Your task to perform on an android device: delete the emails in spam in the gmail app Image 0: 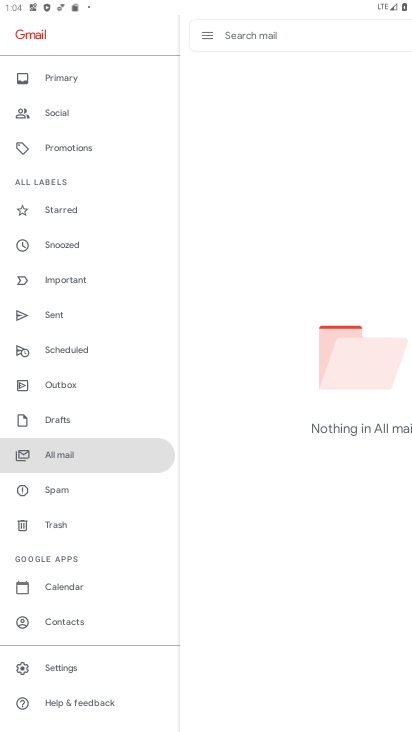
Step 0: click (52, 489)
Your task to perform on an android device: delete the emails in spam in the gmail app Image 1: 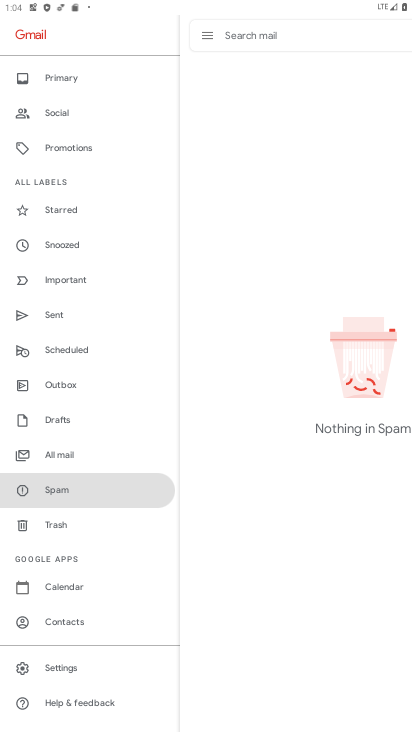
Step 1: task complete